Your task to perform on an android device: Open Google Chrome and click the shortcut for Amazon.com Image 0: 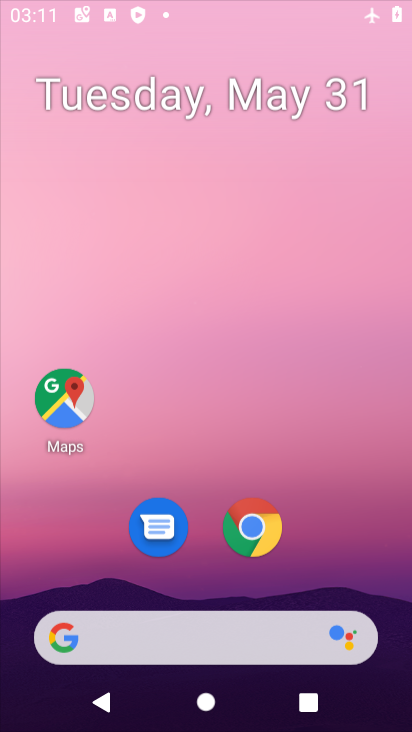
Step 0: drag from (403, 633) to (344, 83)
Your task to perform on an android device: Open Google Chrome and click the shortcut for Amazon.com Image 1: 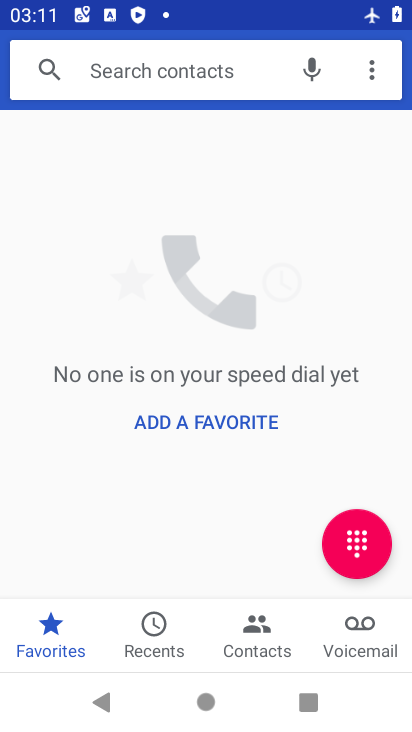
Step 1: press home button
Your task to perform on an android device: Open Google Chrome and click the shortcut for Amazon.com Image 2: 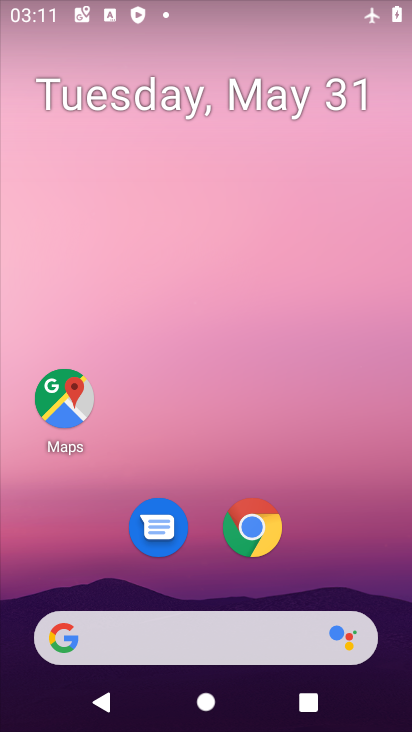
Step 2: click (253, 524)
Your task to perform on an android device: Open Google Chrome and click the shortcut for Amazon.com Image 3: 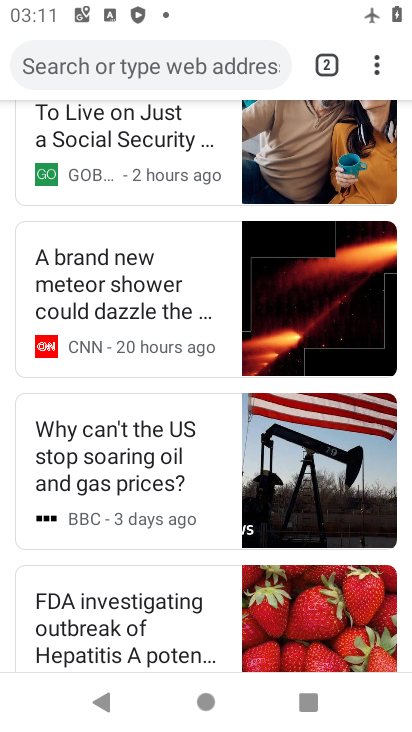
Step 3: drag from (170, 228) to (188, 631)
Your task to perform on an android device: Open Google Chrome and click the shortcut for Amazon.com Image 4: 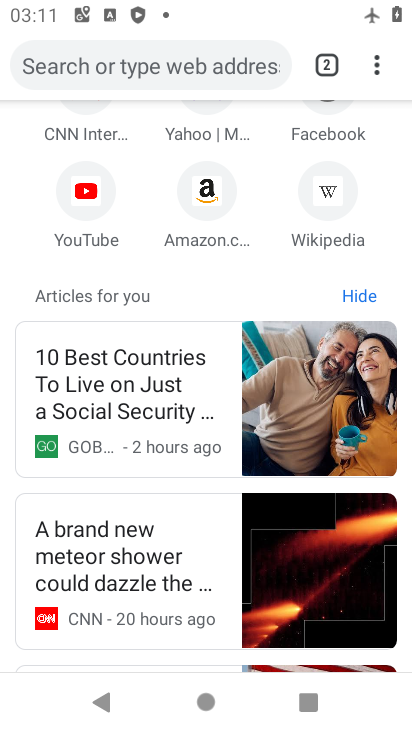
Step 4: drag from (228, 246) to (222, 541)
Your task to perform on an android device: Open Google Chrome and click the shortcut for Amazon.com Image 5: 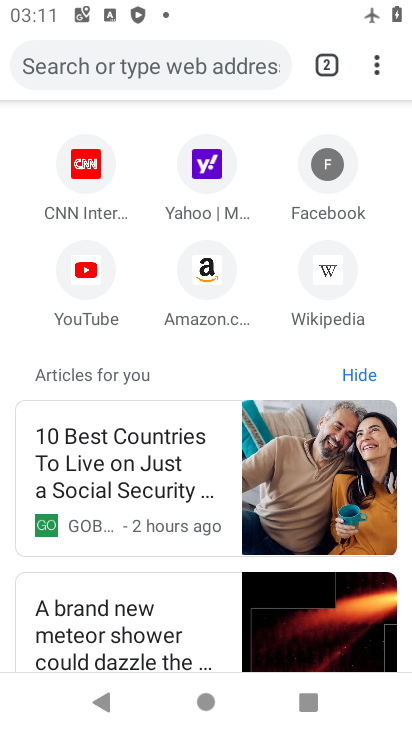
Step 5: click (206, 262)
Your task to perform on an android device: Open Google Chrome and click the shortcut for Amazon.com Image 6: 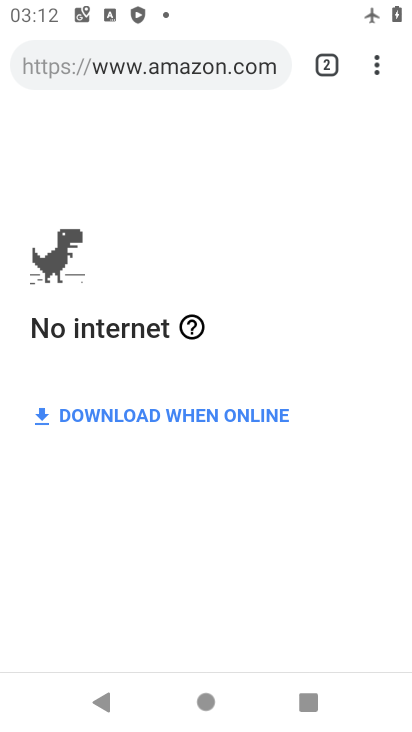
Step 6: task complete